Your task to perform on an android device: Open the calendar and show me this week's events Image 0: 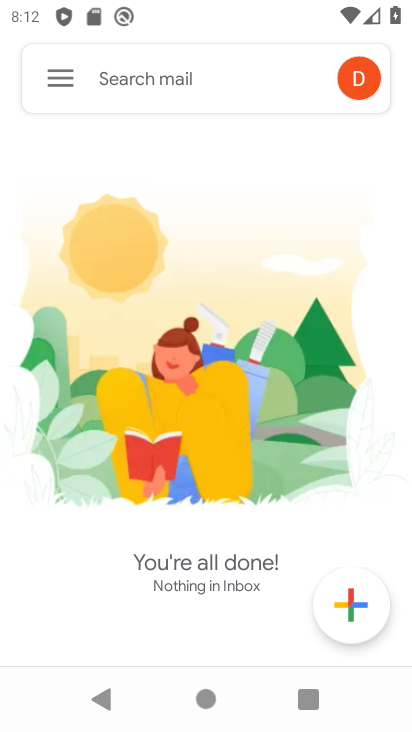
Step 0: press home button
Your task to perform on an android device: Open the calendar and show me this week's events Image 1: 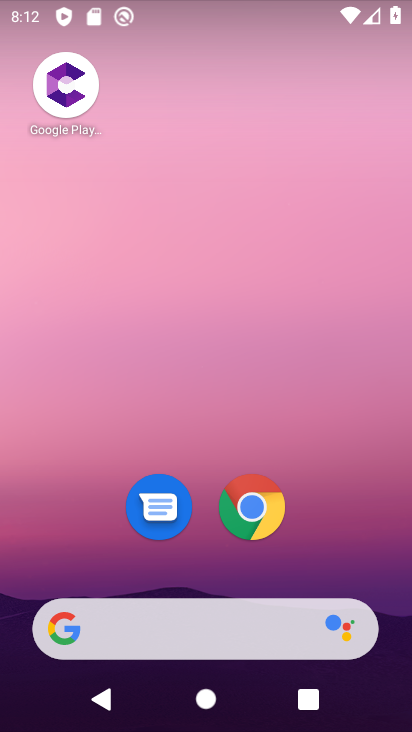
Step 1: drag from (223, 721) to (237, 110)
Your task to perform on an android device: Open the calendar and show me this week's events Image 2: 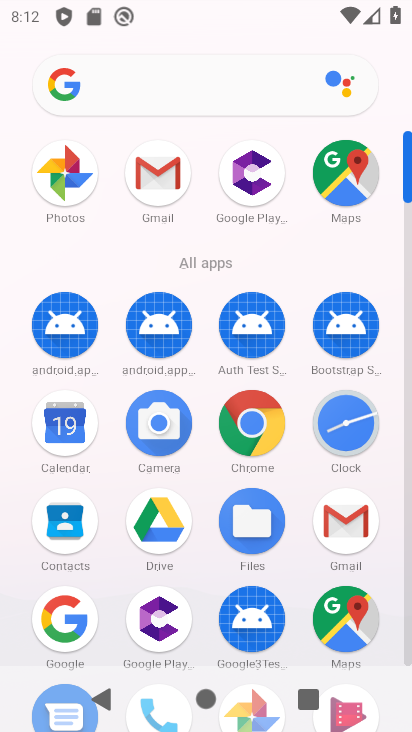
Step 2: click (59, 427)
Your task to perform on an android device: Open the calendar and show me this week's events Image 3: 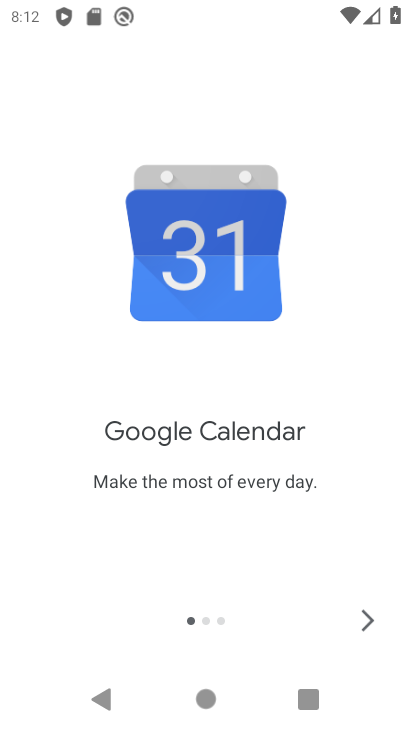
Step 3: click (369, 615)
Your task to perform on an android device: Open the calendar and show me this week's events Image 4: 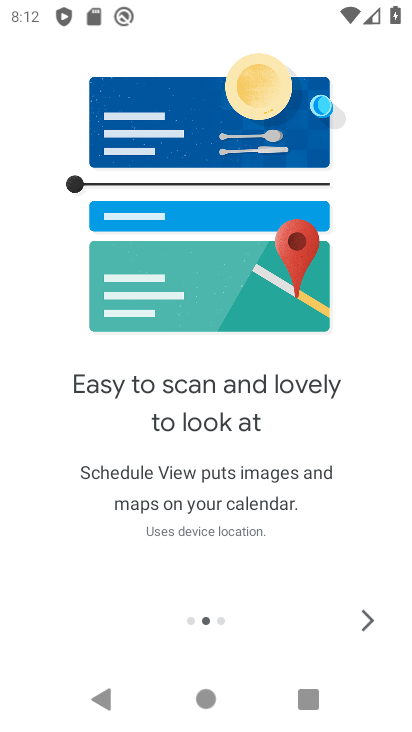
Step 4: click (369, 615)
Your task to perform on an android device: Open the calendar and show me this week's events Image 5: 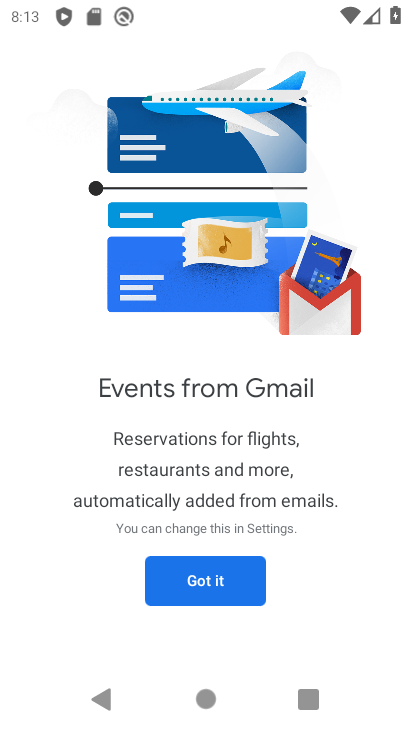
Step 5: click (185, 592)
Your task to perform on an android device: Open the calendar and show me this week's events Image 6: 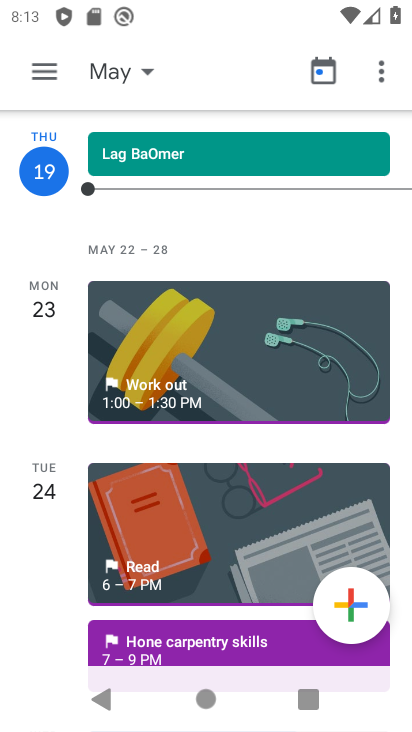
Step 6: click (115, 76)
Your task to perform on an android device: Open the calendar and show me this week's events Image 7: 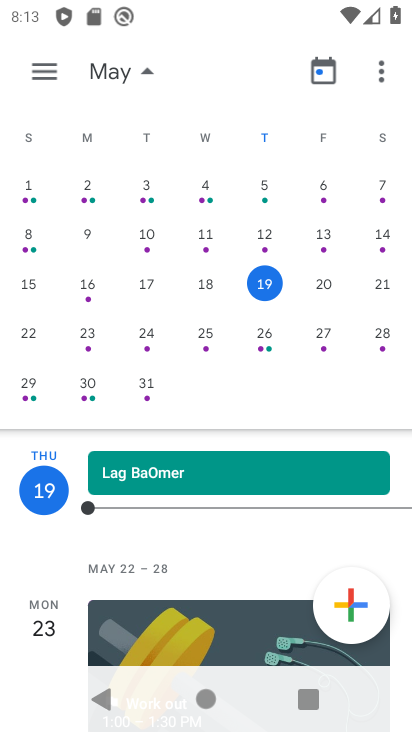
Step 7: click (40, 63)
Your task to perform on an android device: Open the calendar and show me this week's events Image 8: 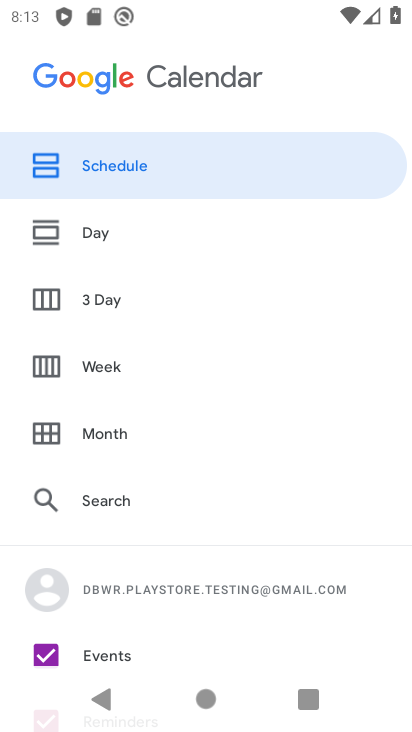
Step 8: drag from (138, 606) to (140, 245)
Your task to perform on an android device: Open the calendar and show me this week's events Image 9: 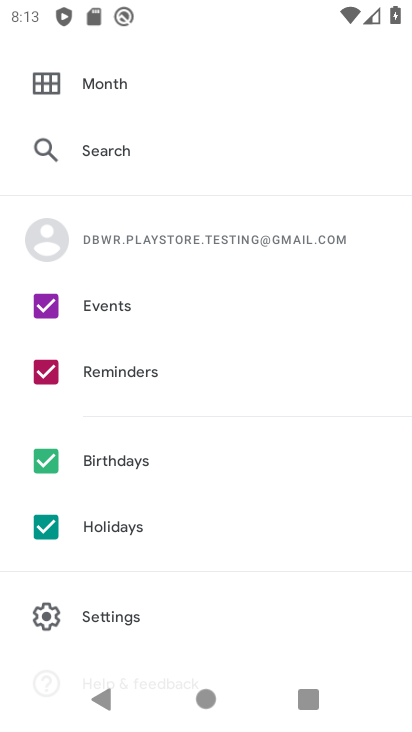
Step 9: click (51, 526)
Your task to perform on an android device: Open the calendar and show me this week's events Image 10: 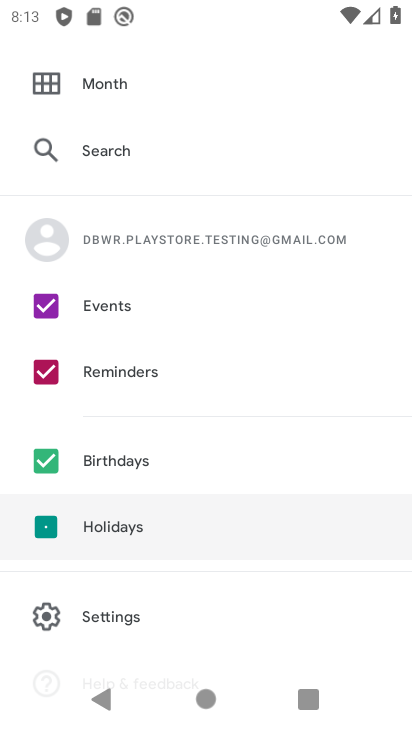
Step 10: click (45, 457)
Your task to perform on an android device: Open the calendar and show me this week's events Image 11: 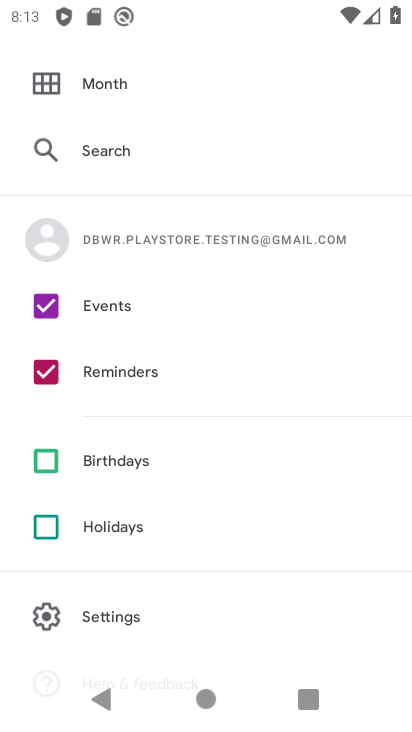
Step 11: click (45, 367)
Your task to perform on an android device: Open the calendar and show me this week's events Image 12: 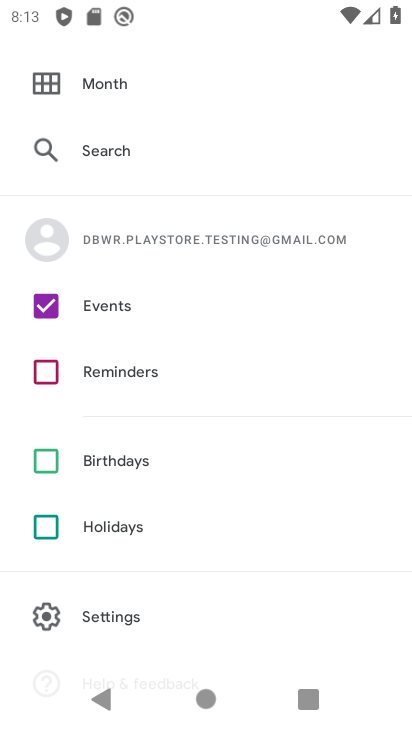
Step 12: drag from (149, 101) to (174, 532)
Your task to perform on an android device: Open the calendar and show me this week's events Image 13: 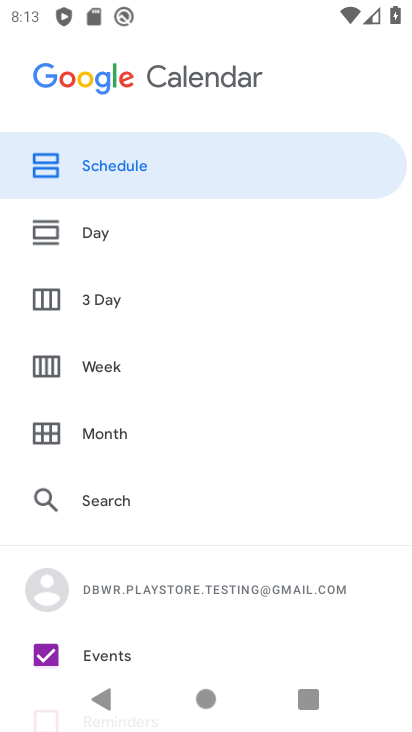
Step 13: click (102, 362)
Your task to perform on an android device: Open the calendar and show me this week's events Image 14: 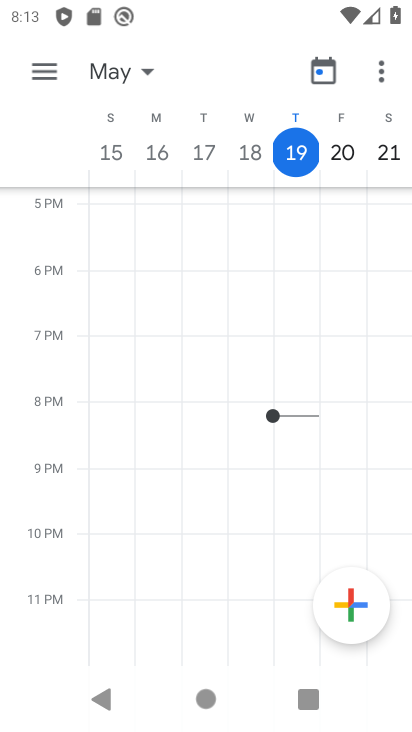
Step 14: task complete